Your task to perform on an android device: turn off location Image 0: 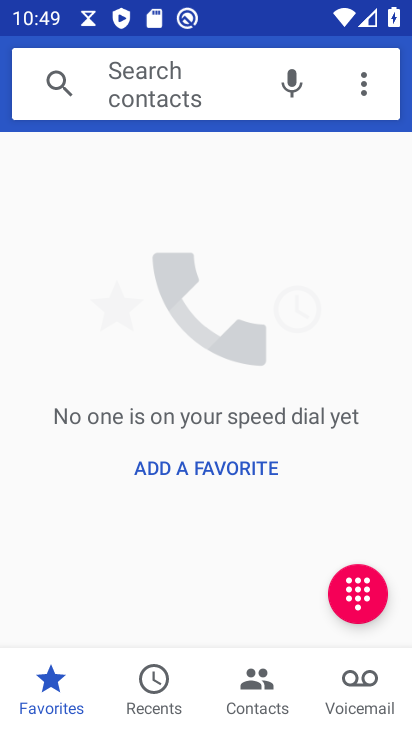
Step 0: press home button
Your task to perform on an android device: turn off location Image 1: 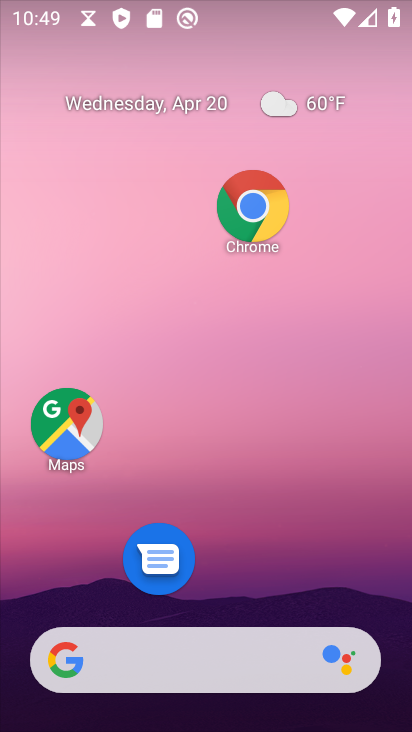
Step 1: drag from (294, 606) to (311, 44)
Your task to perform on an android device: turn off location Image 2: 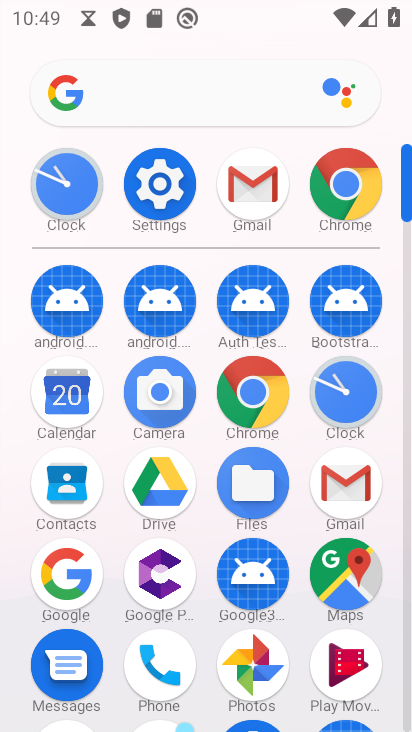
Step 2: drag from (205, 602) to (213, 155)
Your task to perform on an android device: turn off location Image 3: 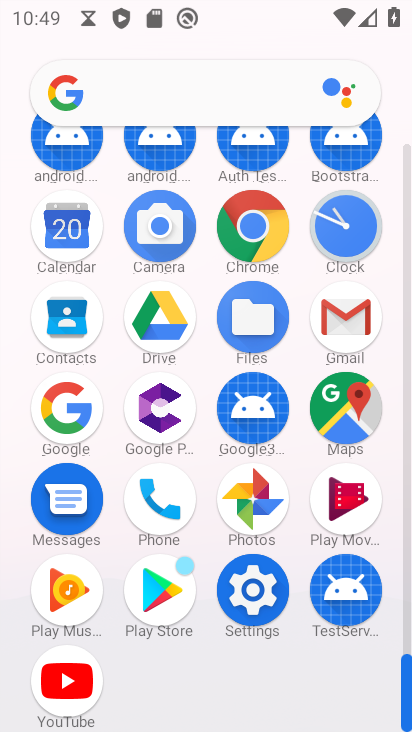
Step 3: click (248, 611)
Your task to perform on an android device: turn off location Image 4: 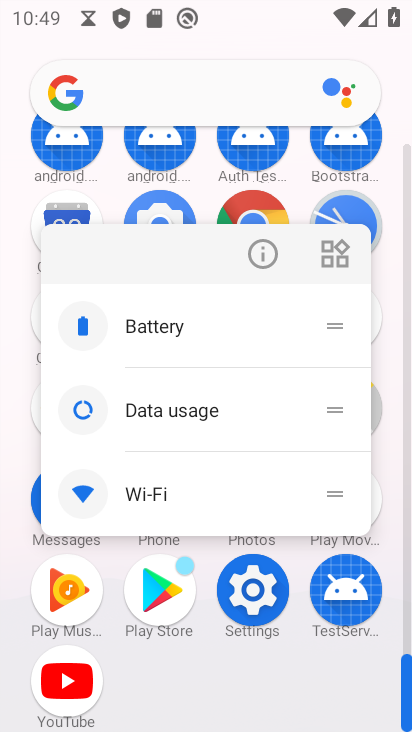
Step 4: click (248, 611)
Your task to perform on an android device: turn off location Image 5: 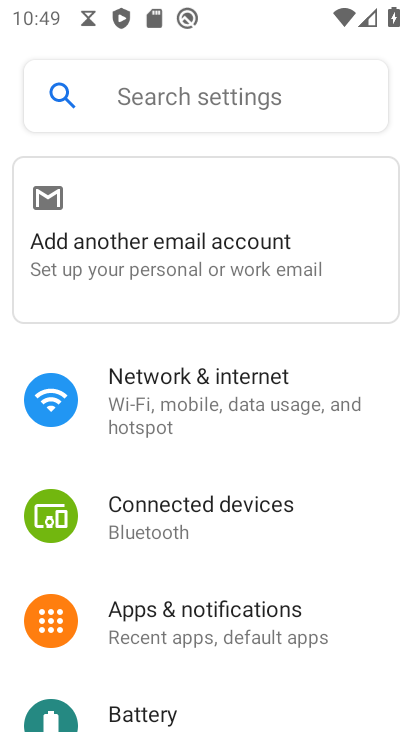
Step 5: drag from (305, 671) to (343, 231)
Your task to perform on an android device: turn off location Image 6: 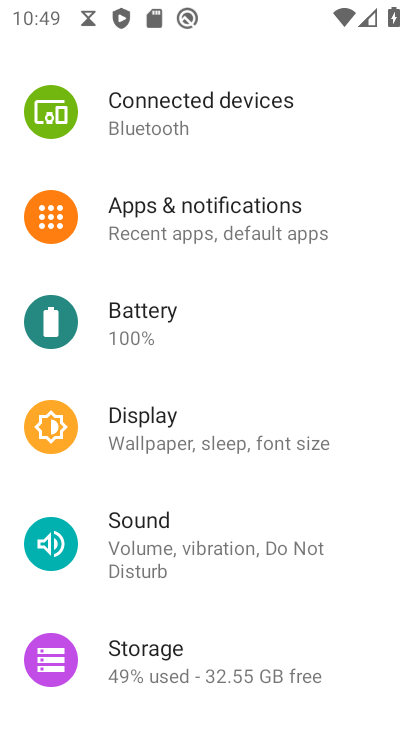
Step 6: drag from (226, 656) to (275, 141)
Your task to perform on an android device: turn off location Image 7: 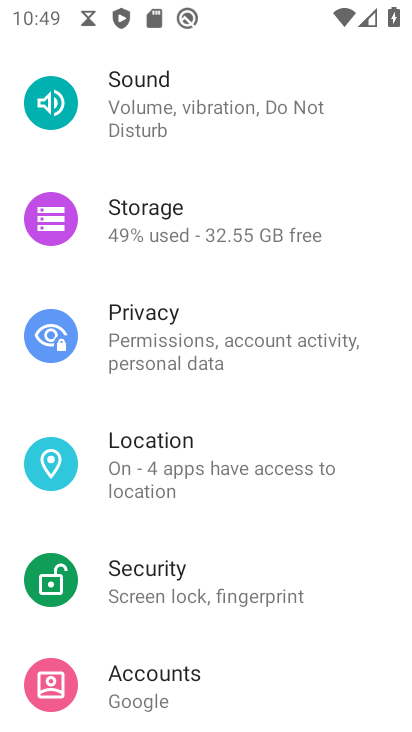
Step 7: click (270, 470)
Your task to perform on an android device: turn off location Image 8: 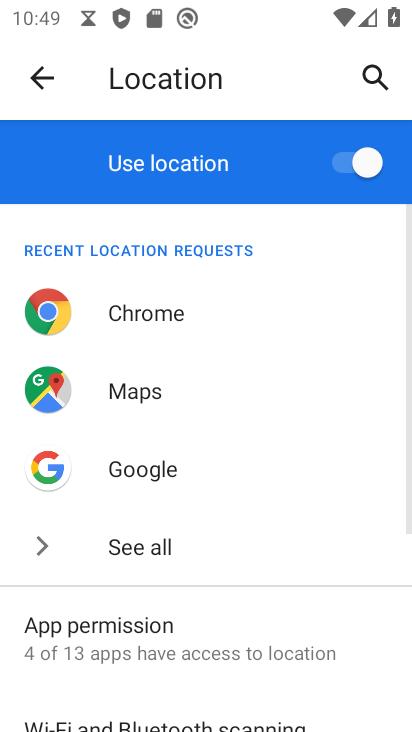
Step 8: drag from (216, 672) to (243, 111)
Your task to perform on an android device: turn off location Image 9: 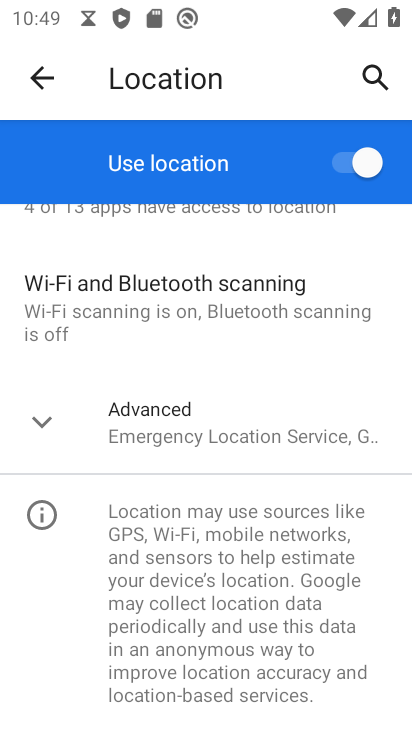
Step 9: click (352, 158)
Your task to perform on an android device: turn off location Image 10: 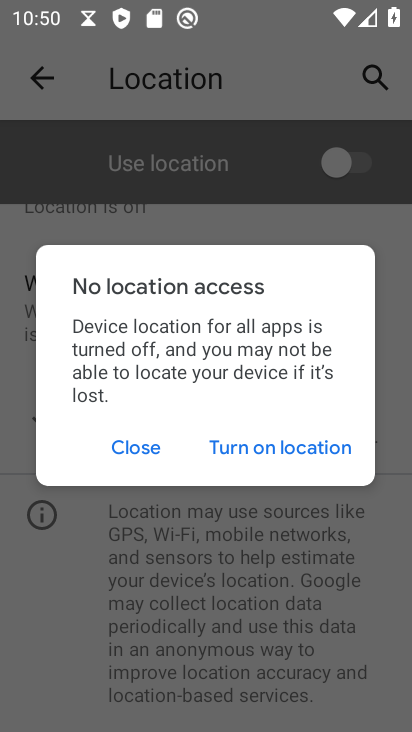
Step 10: click (120, 438)
Your task to perform on an android device: turn off location Image 11: 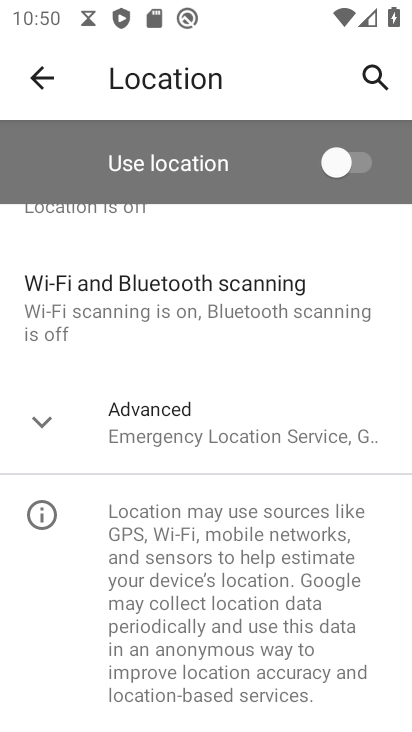
Step 11: task complete